Your task to perform on an android device: Open the stopwatch Image 0: 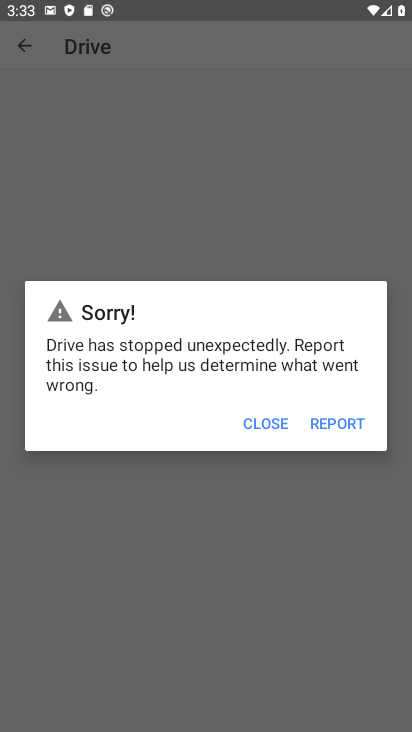
Step 0: click (261, 420)
Your task to perform on an android device: Open the stopwatch Image 1: 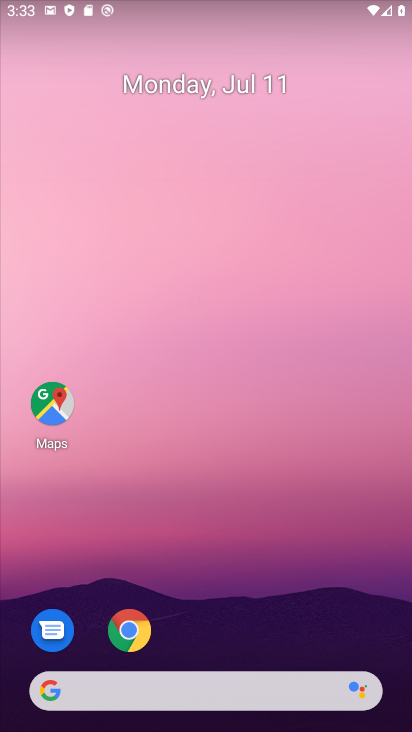
Step 1: drag from (269, 215) to (256, 122)
Your task to perform on an android device: Open the stopwatch Image 2: 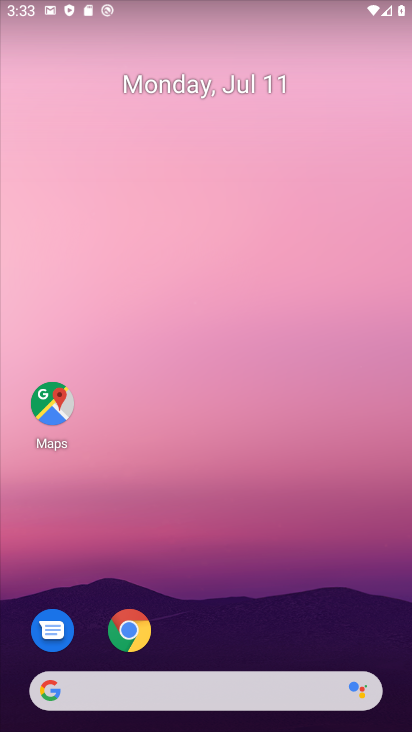
Step 2: drag from (209, 720) to (174, 146)
Your task to perform on an android device: Open the stopwatch Image 3: 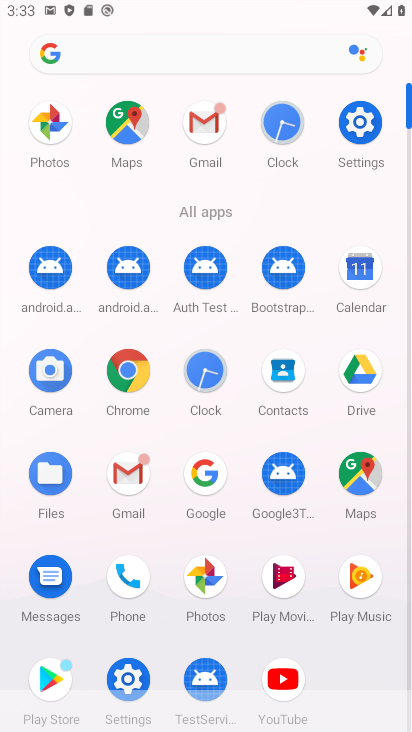
Step 3: click (195, 372)
Your task to perform on an android device: Open the stopwatch Image 4: 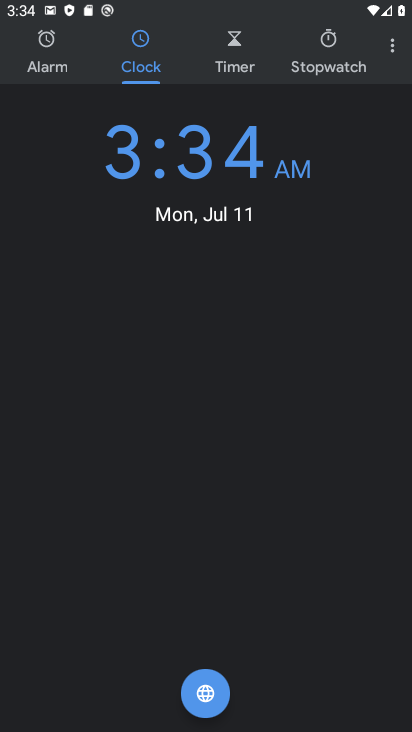
Step 4: drag from (239, 675) to (211, 173)
Your task to perform on an android device: Open the stopwatch Image 5: 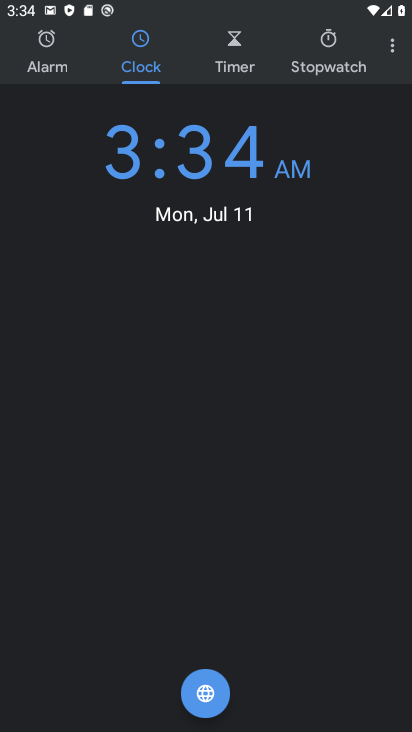
Step 5: click (326, 42)
Your task to perform on an android device: Open the stopwatch Image 6: 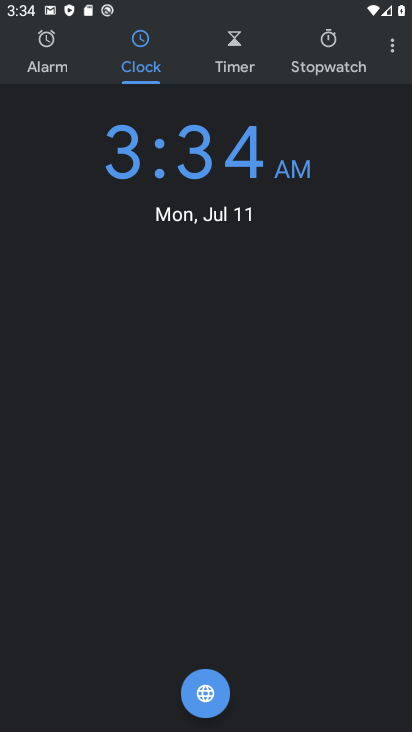
Step 6: click (332, 45)
Your task to perform on an android device: Open the stopwatch Image 7: 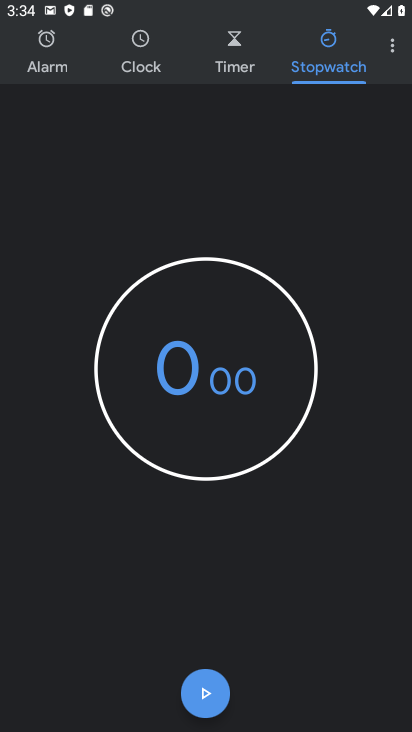
Step 7: click (324, 51)
Your task to perform on an android device: Open the stopwatch Image 8: 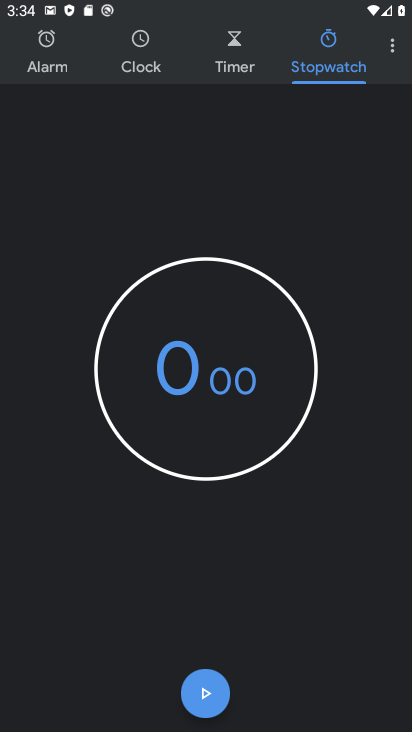
Step 8: click (324, 54)
Your task to perform on an android device: Open the stopwatch Image 9: 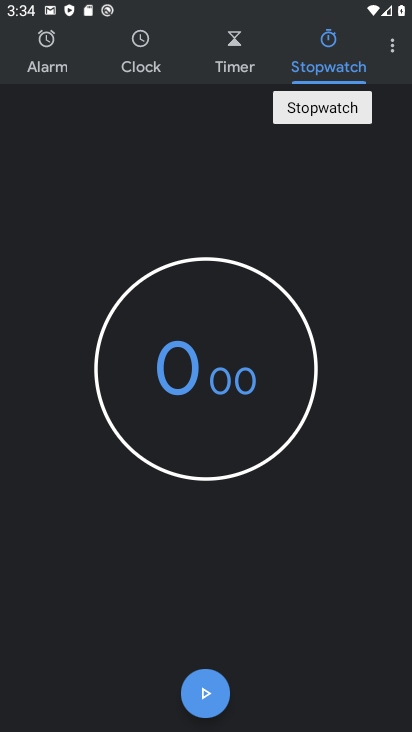
Step 9: click (320, 17)
Your task to perform on an android device: Open the stopwatch Image 10: 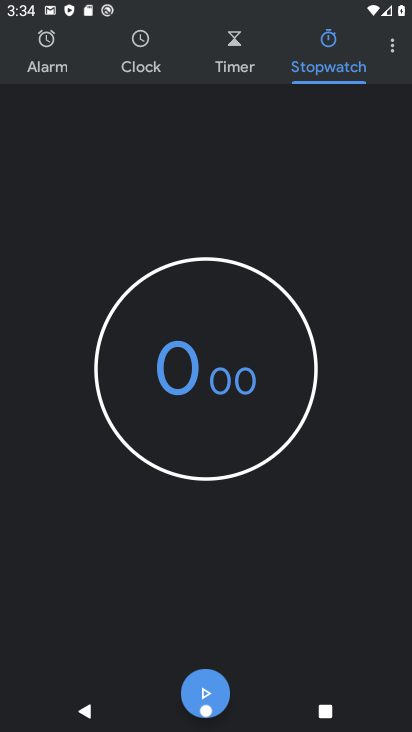
Step 10: task complete